Your task to perform on an android device: Go to Yahoo.com Image 0: 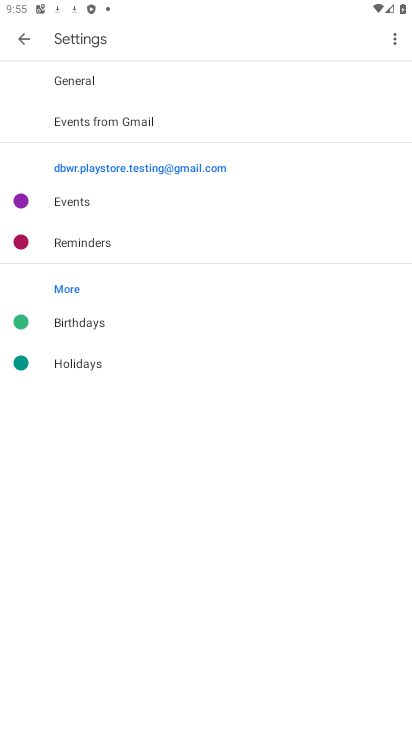
Step 0: press home button
Your task to perform on an android device: Go to Yahoo.com Image 1: 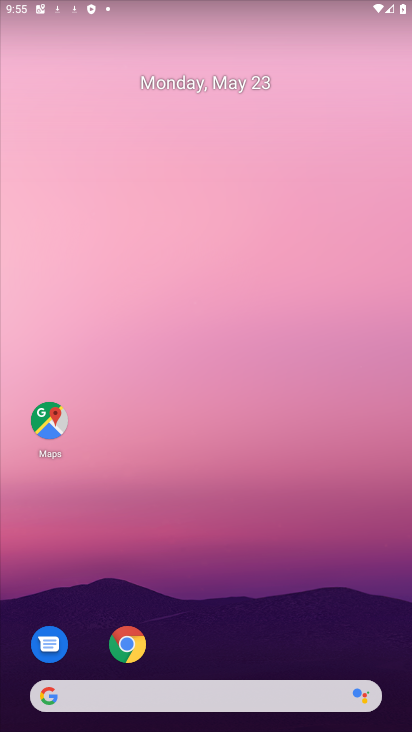
Step 1: drag from (268, 710) to (231, 129)
Your task to perform on an android device: Go to Yahoo.com Image 2: 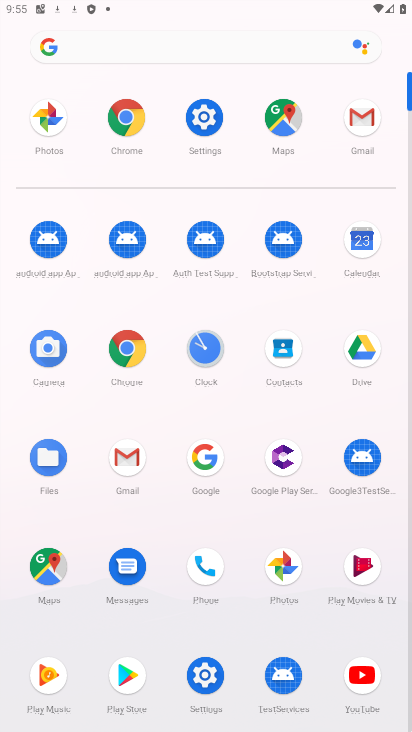
Step 2: click (120, 119)
Your task to perform on an android device: Go to Yahoo.com Image 3: 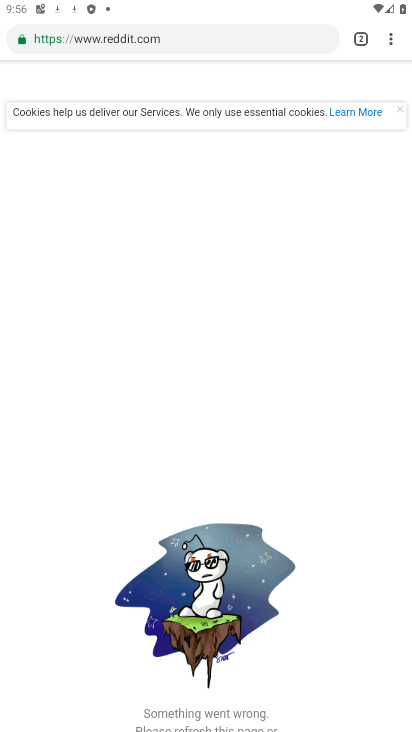
Step 3: click (165, 34)
Your task to perform on an android device: Go to Yahoo.com Image 4: 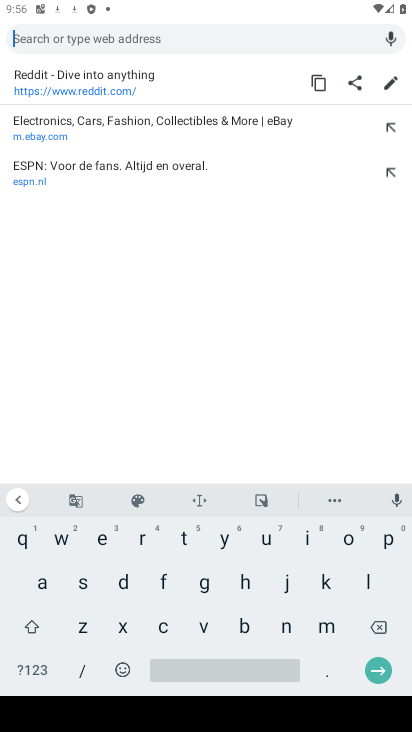
Step 4: click (218, 542)
Your task to perform on an android device: Go to Yahoo.com Image 5: 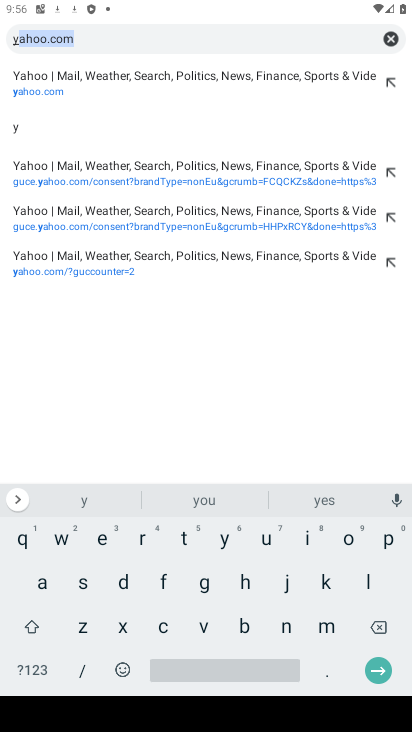
Step 5: click (109, 32)
Your task to perform on an android device: Go to Yahoo.com Image 6: 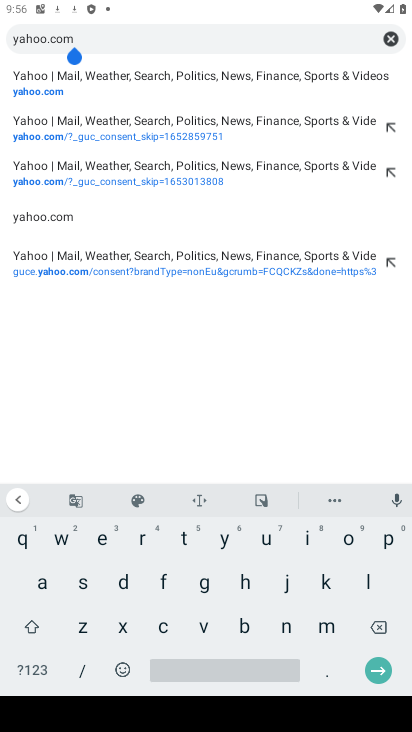
Step 6: click (381, 671)
Your task to perform on an android device: Go to Yahoo.com Image 7: 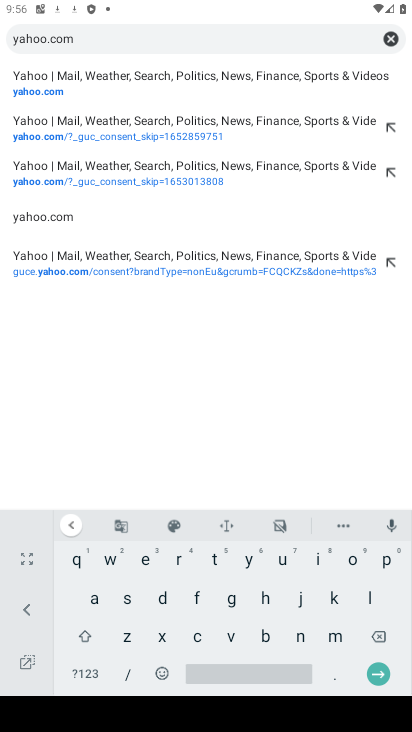
Step 7: click (370, 677)
Your task to perform on an android device: Go to Yahoo.com Image 8: 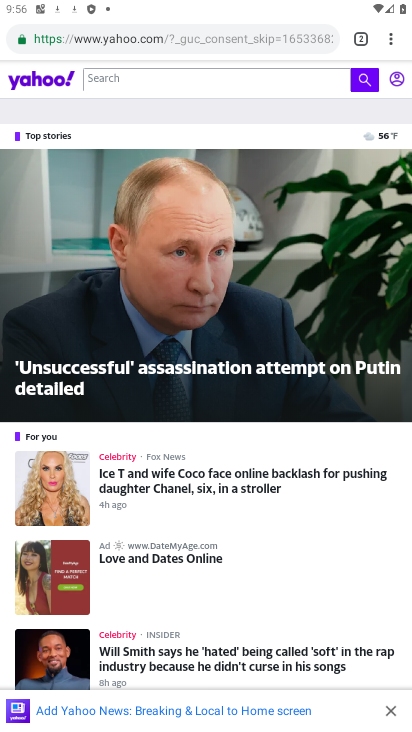
Step 8: task complete